Your task to perform on an android device: open app "Pandora - Music & Podcasts" (install if not already installed) and enter user name: "creator@yahoo.com" and password: "valuable" Image 0: 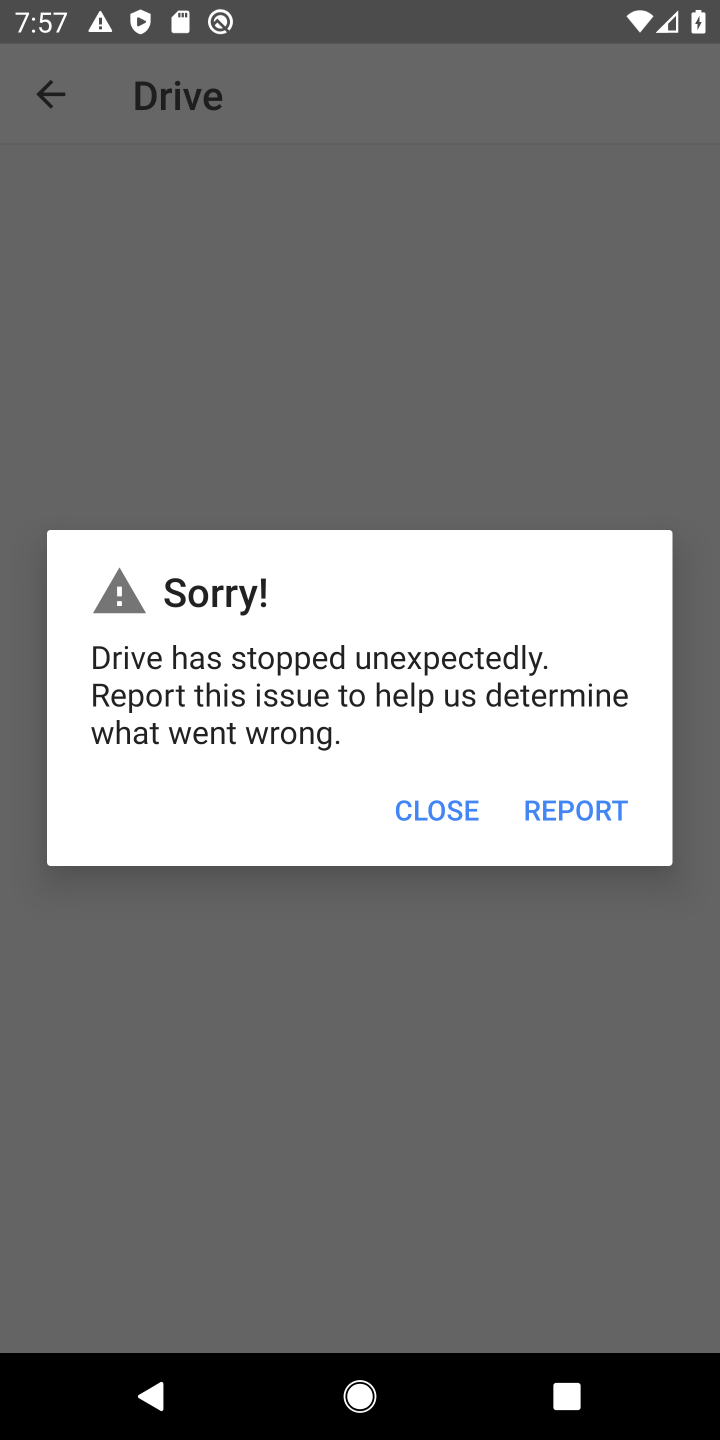
Step 0: press back button
Your task to perform on an android device: open app "Pandora - Music & Podcasts" (install if not already installed) and enter user name: "creator@yahoo.com" and password: "valuable" Image 1: 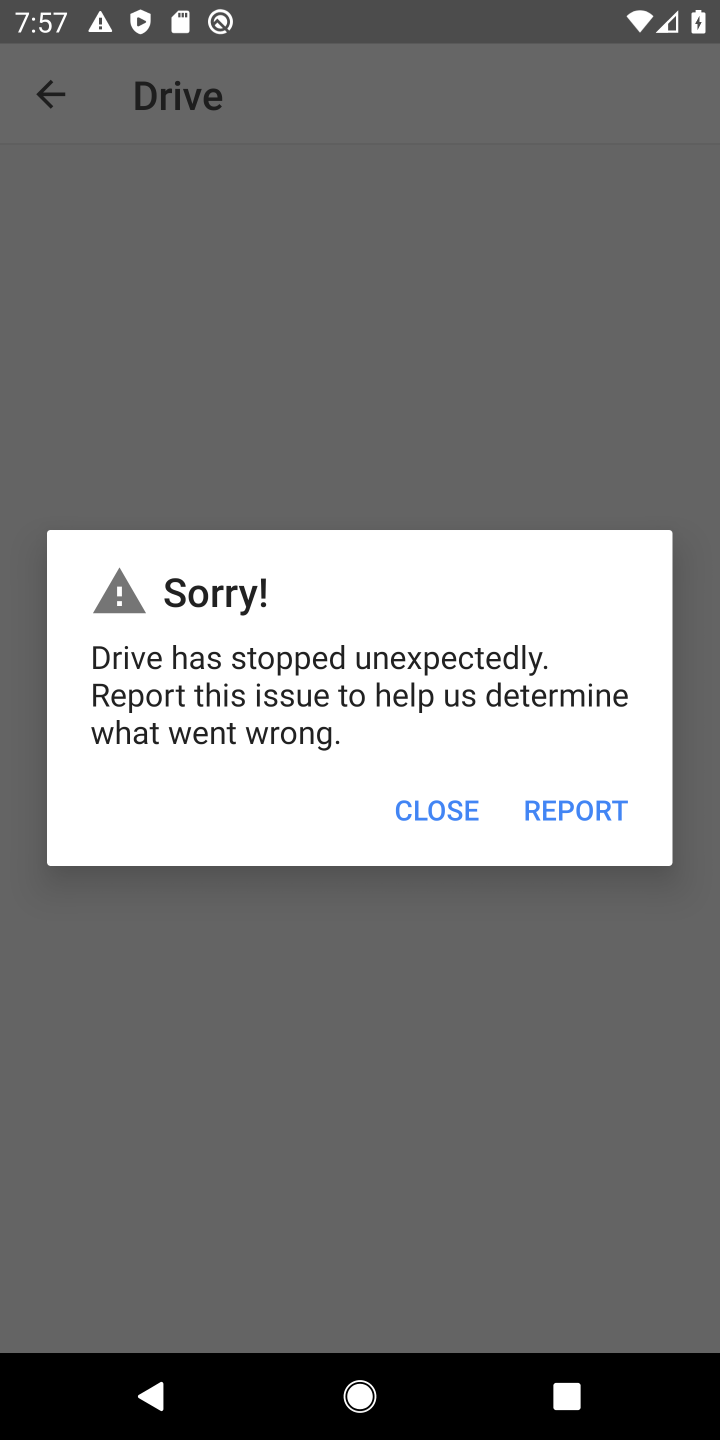
Step 1: press home button
Your task to perform on an android device: open app "Pandora - Music & Podcasts" (install if not already installed) and enter user name: "creator@yahoo.com" and password: "valuable" Image 2: 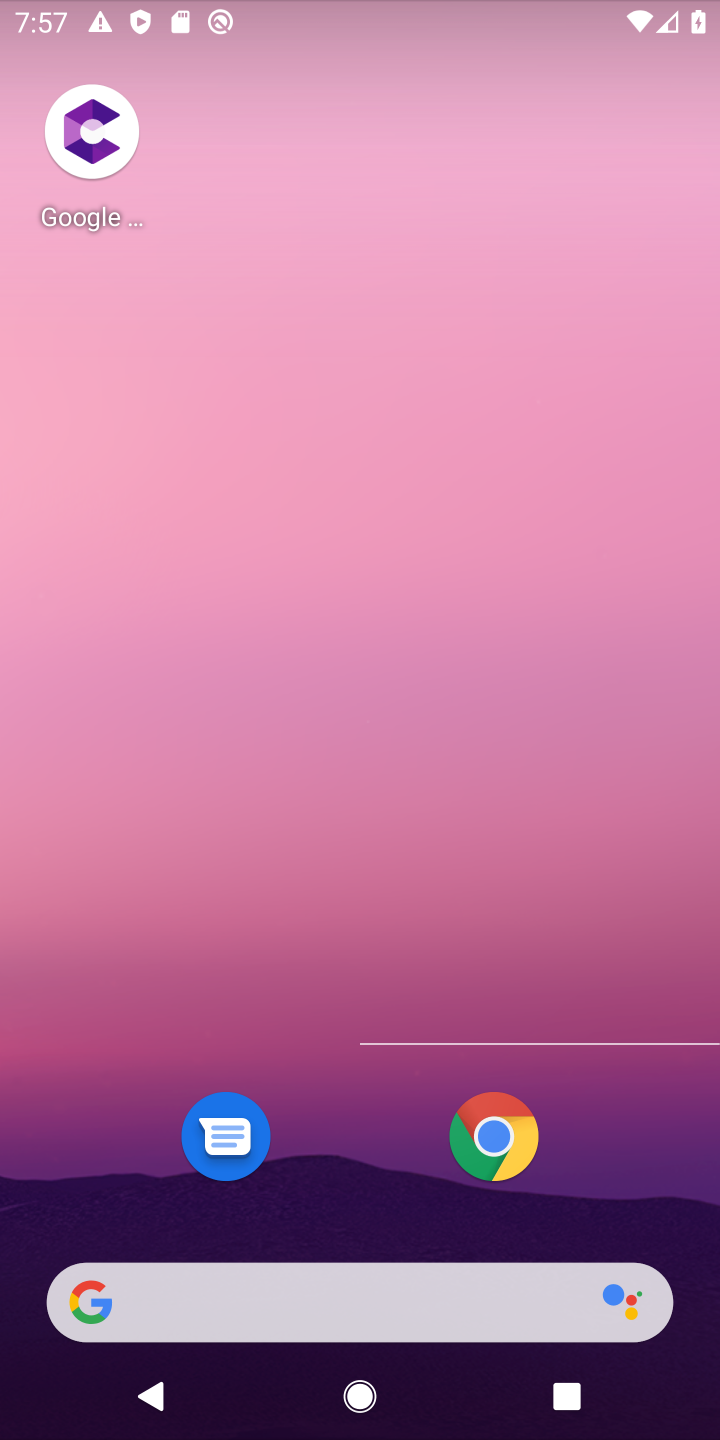
Step 2: drag from (346, 1141) to (580, 60)
Your task to perform on an android device: open app "Pandora - Music & Podcasts" (install if not already installed) and enter user name: "creator@yahoo.com" and password: "valuable" Image 3: 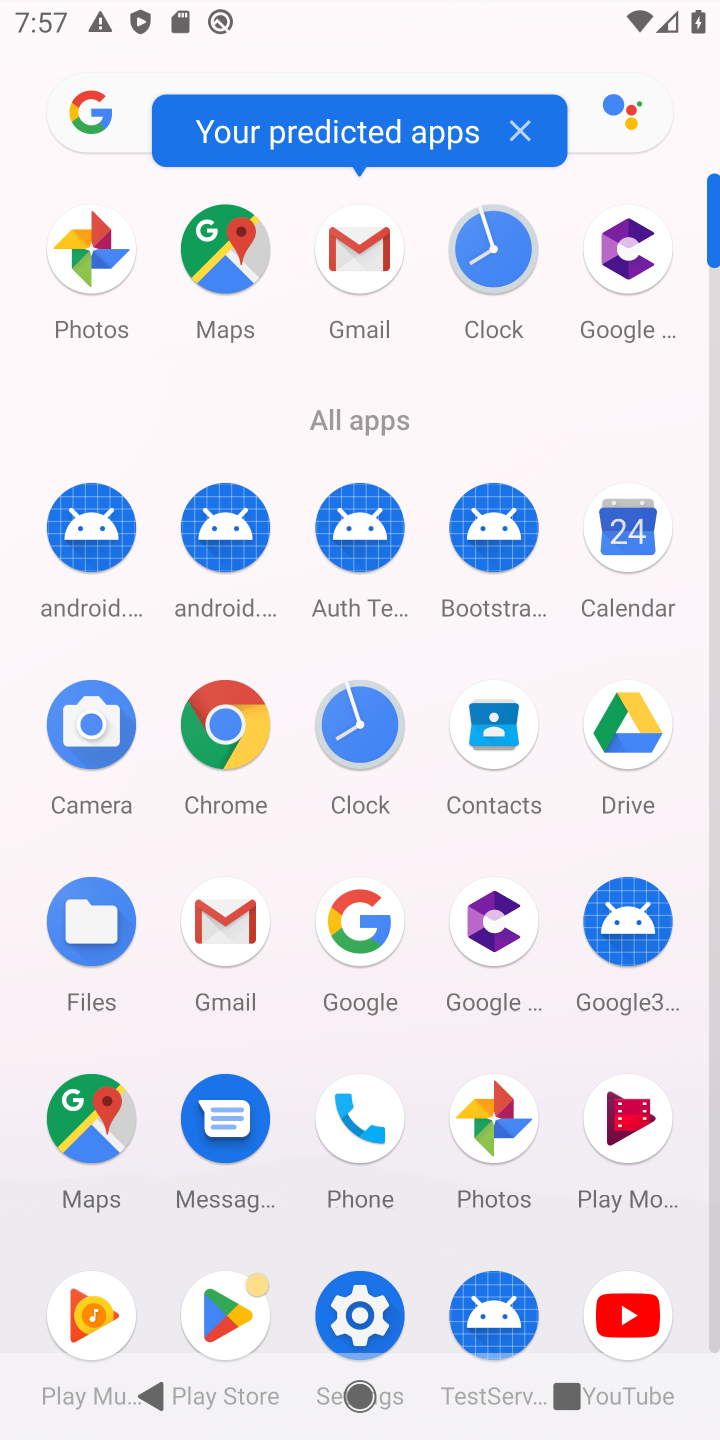
Step 3: click (243, 1302)
Your task to perform on an android device: open app "Pandora - Music & Podcasts" (install if not already installed) and enter user name: "creator@yahoo.com" and password: "valuable" Image 4: 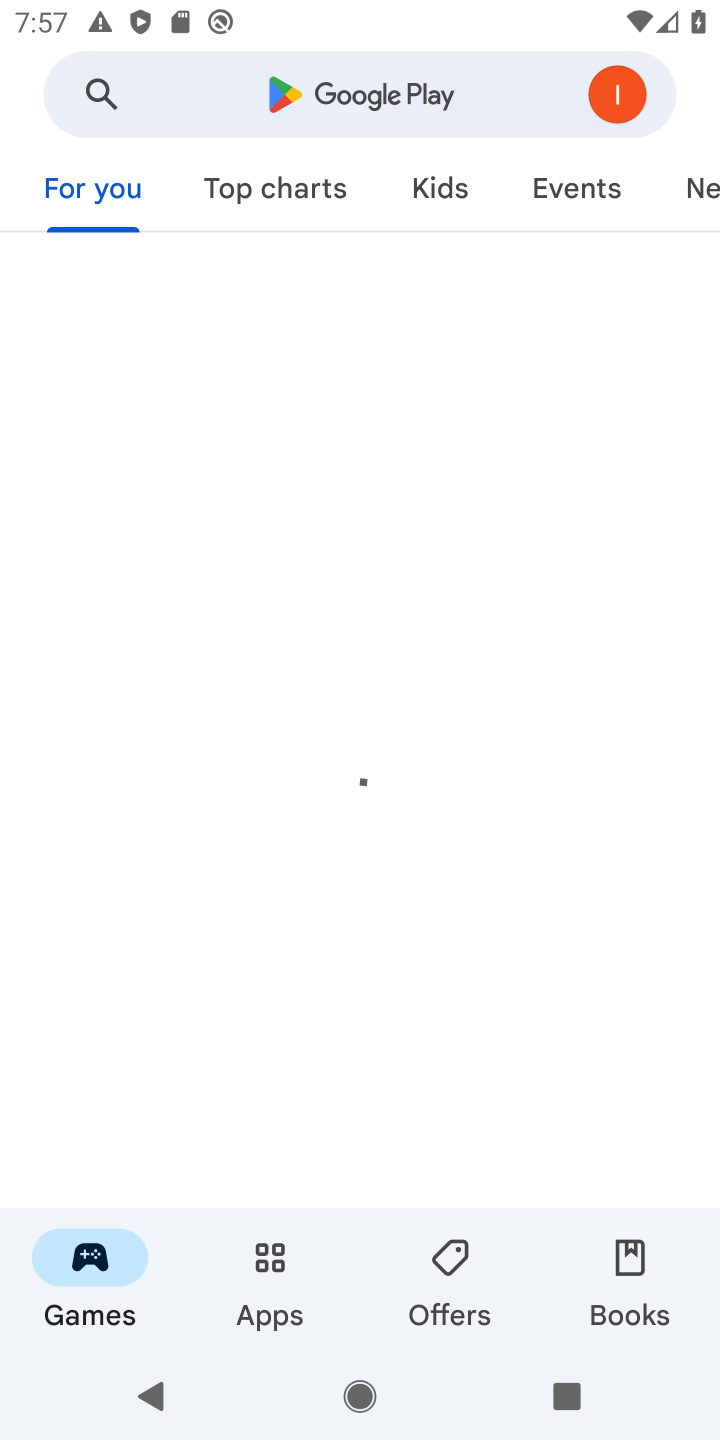
Step 4: click (340, 88)
Your task to perform on an android device: open app "Pandora - Music & Podcasts" (install if not already installed) and enter user name: "creator@yahoo.com" and password: "valuable" Image 5: 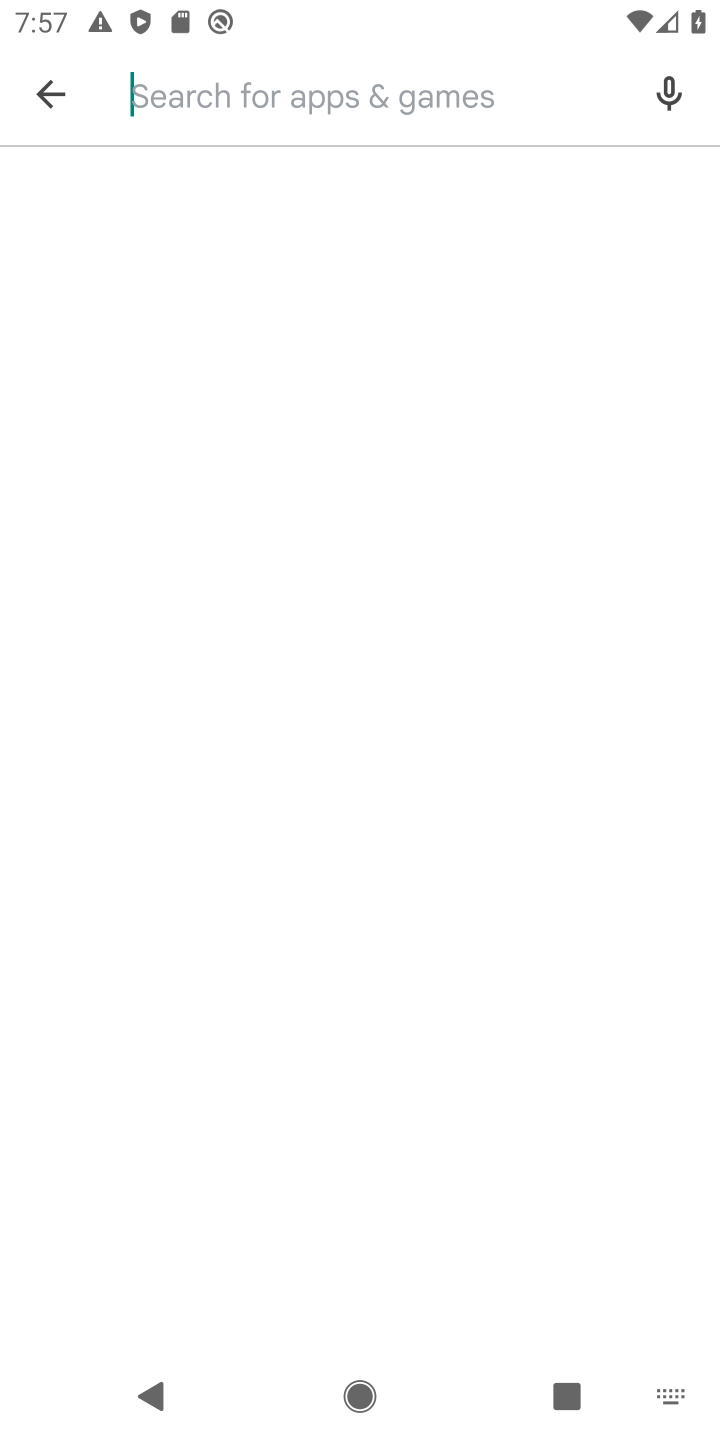
Step 5: type "pandora"
Your task to perform on an android device: open app "Pandora - Music & Podcasts" (install if not already installed) and enter user name: "creator@yahoo.com" and password: "valuable" Image 6: 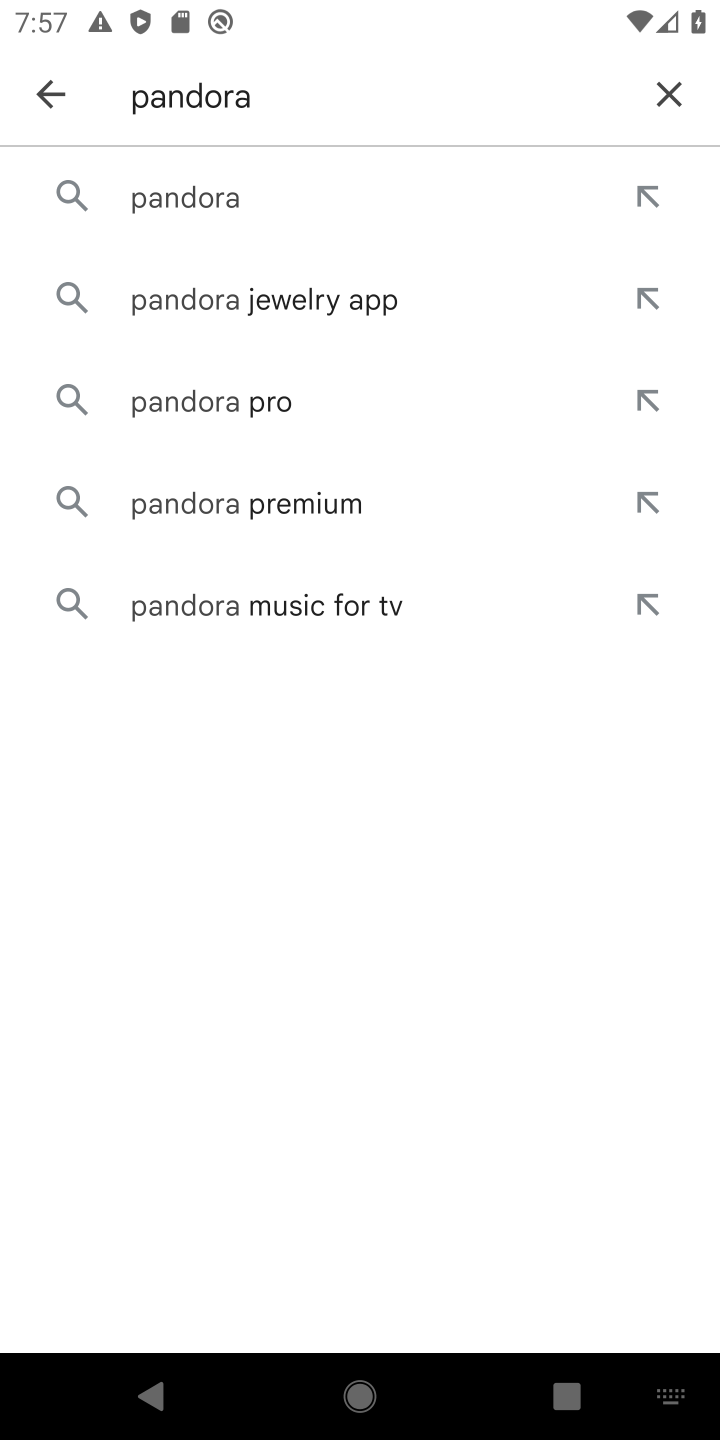
Step 6: click (175, 185)
Your task to perform on an android device: open app "Pandora - Music & Podcasts" (install if not already installed) and enter user name: "creator@yahoo.com" and password: "valuable" Image 7: 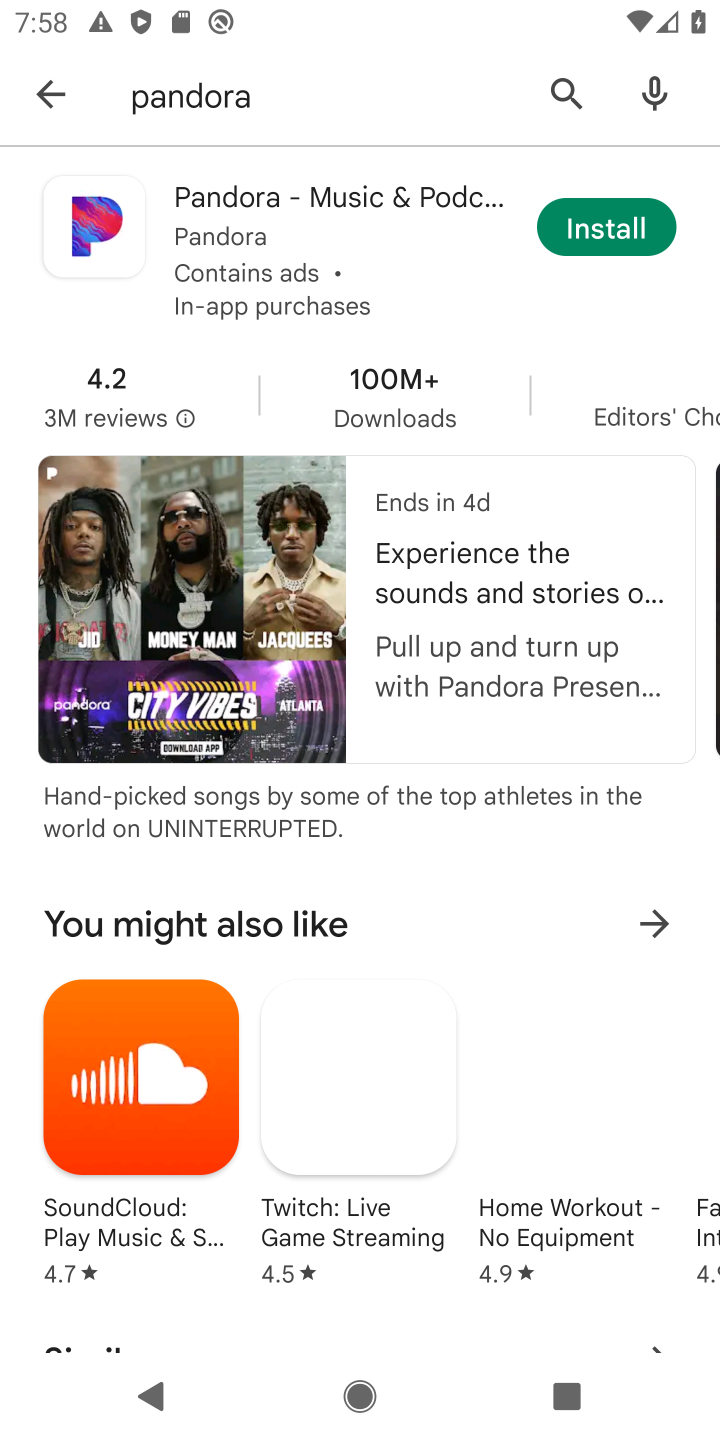
Step 7: click (618, 216)
Your task to perform on an android device: open app "Pandora - Music & Podcasts" (install if not already installed) and enter user name: "creator@yahoo.com" and password: "valuable" Image 8: 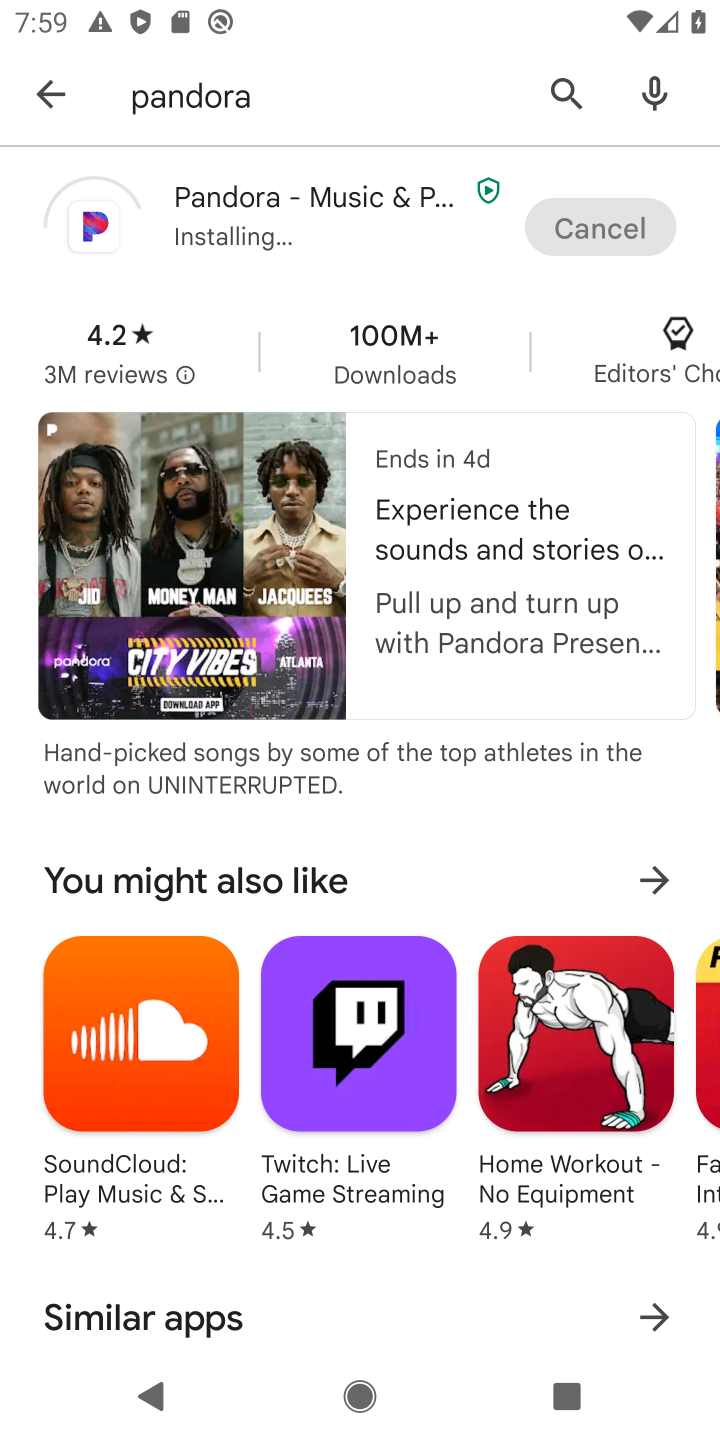
Step 8: press back button
Your task to perform on an android device: open app "Pandora - Music & Podcasts" (install if not already installed) and enter user name: "creator@yahoo.com" and password: "valuable" Image 9: 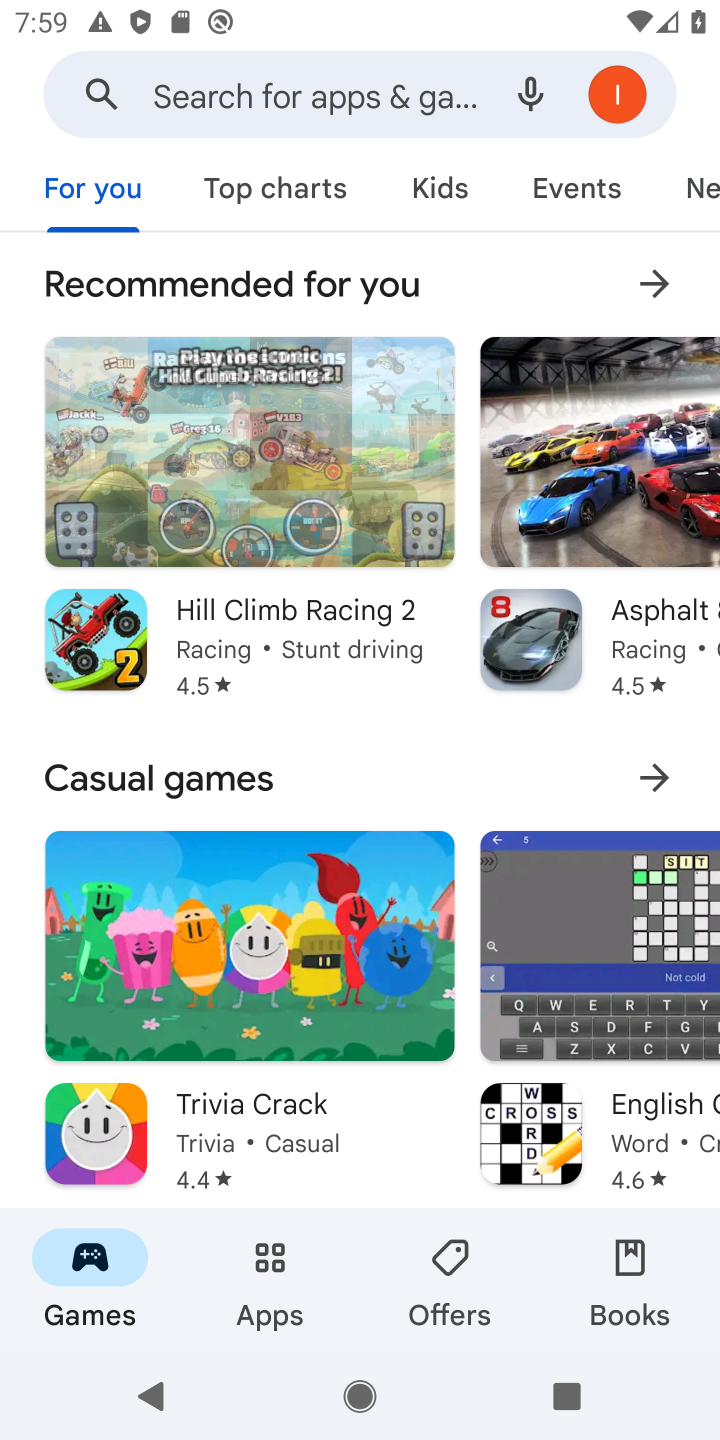
Step 9: click (287, 107)
Your task to perform on an android device: open app "Pandora - Music & Podcasts" (install if not already installed) and enter user name: "creator@yahoo.com" and password: "valuable" Image 10: 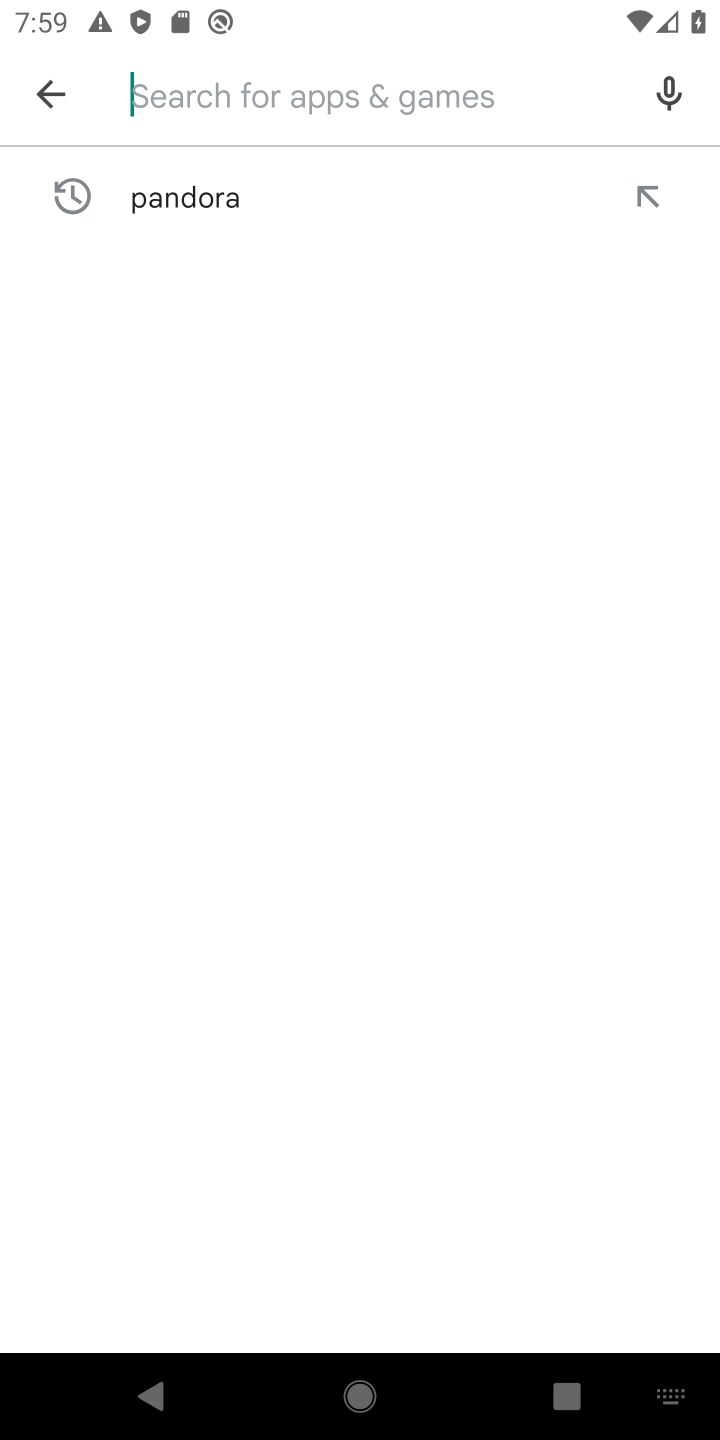
Step 10: click (184, 187)
Your task to perform on an android device: open app "Pandora - Music & Podcasts" (install if not already installed) and enter user name: "creator@yahoo.com" and password: "valuable" Image 11: 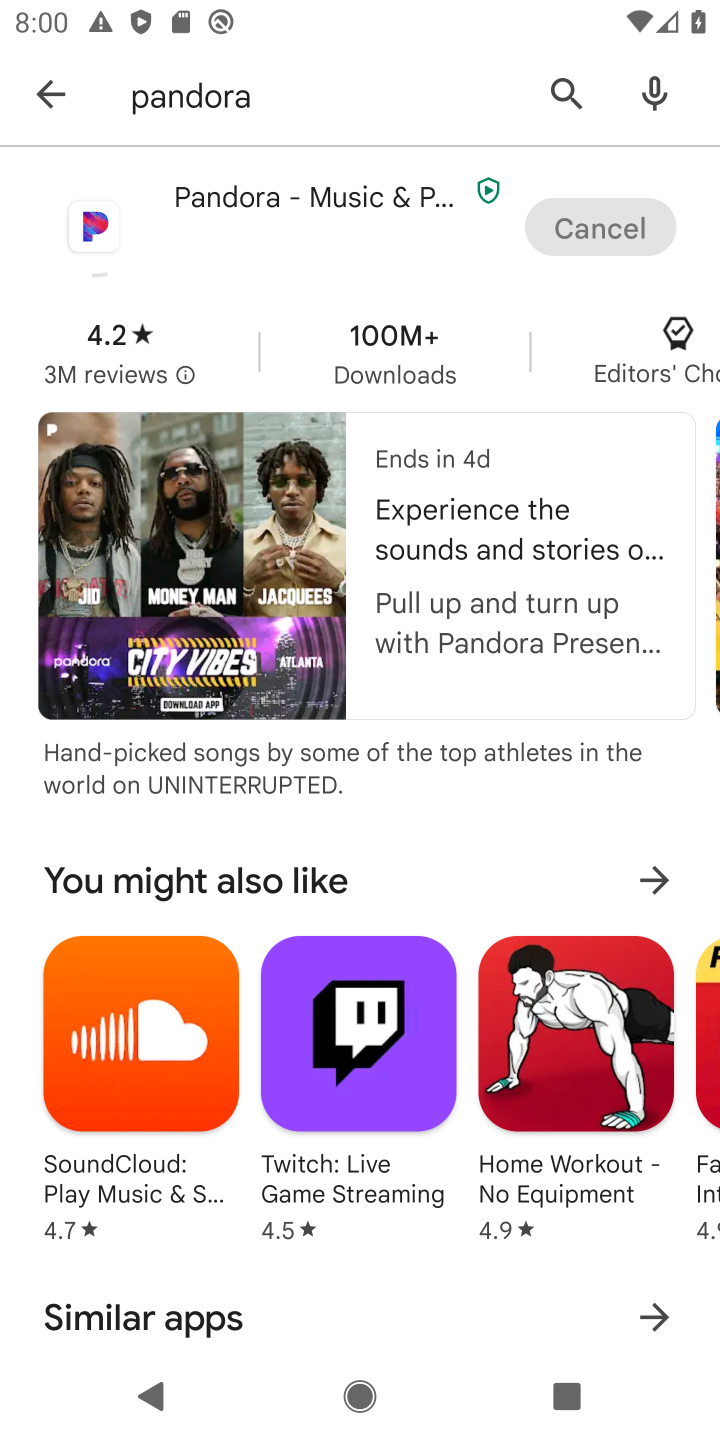
Step 11: task complete